Your task to perform on an android device: Go to Maps Image 0: 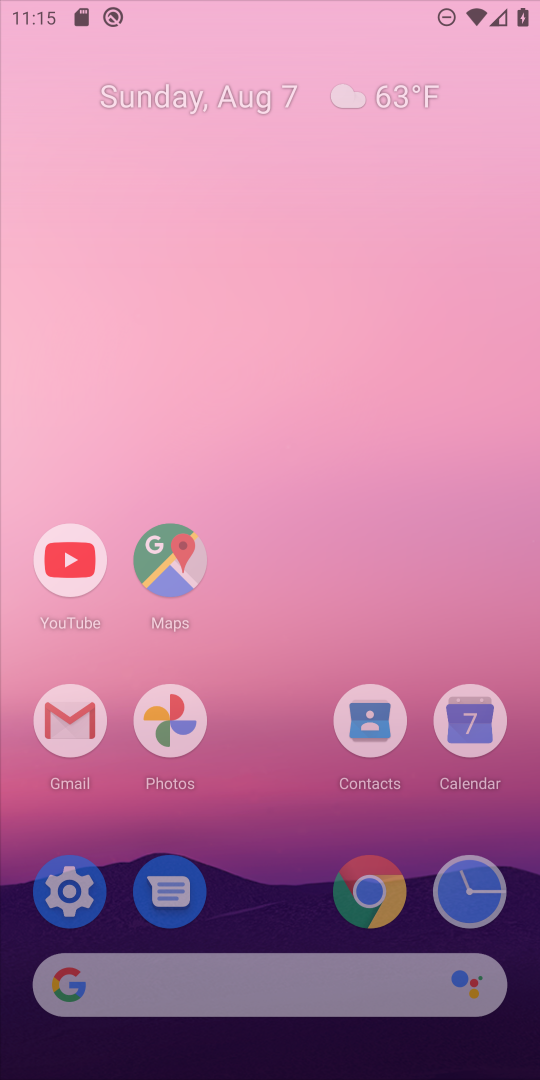
Step 0: press home button
Your task to perform on an android device: Go to Maps Image 1: 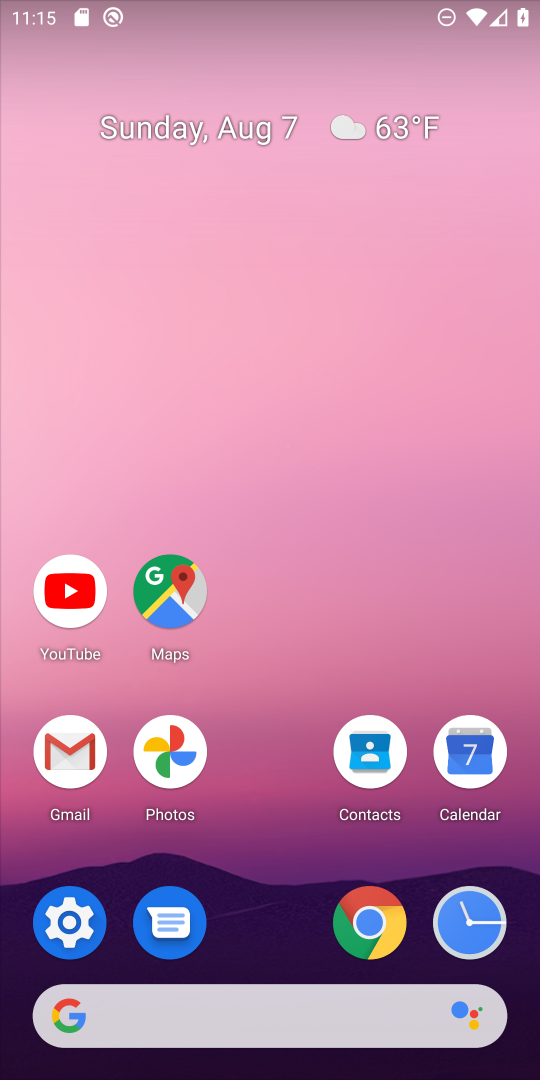
Step 1: click (163, 605)
Your task to perform on an android device: Go to Maps Image 2: 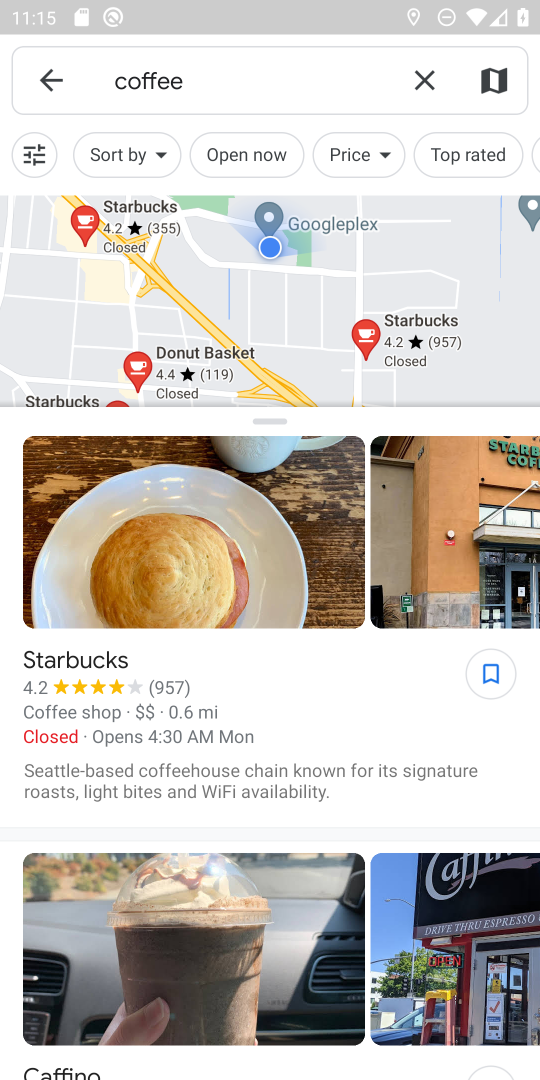
Step 2: click (53, 76)
Your task to perform on an android device: Go to Maps Image 3: 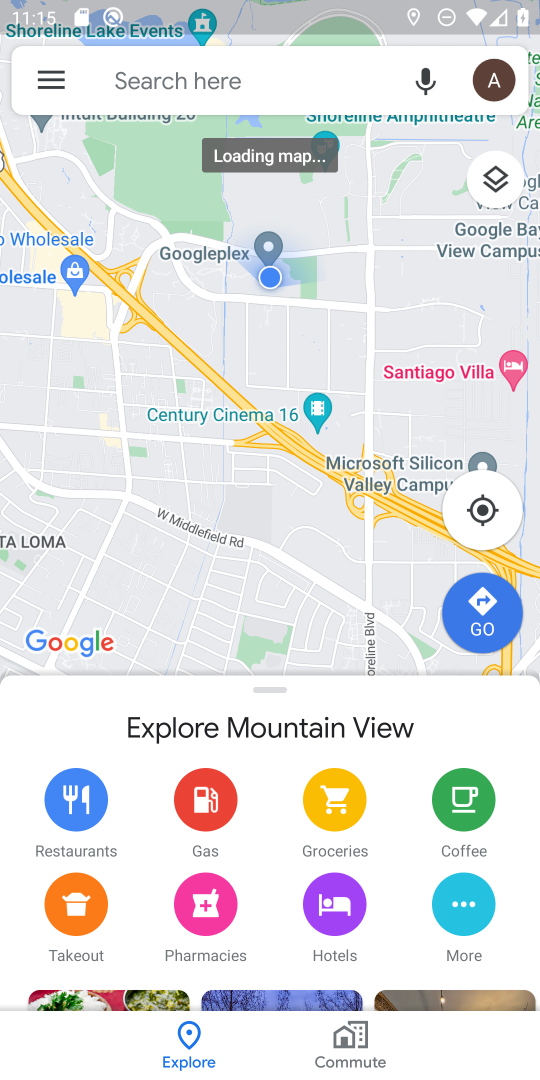
Step 3: task complete